Your task to perform on an android device: Go to ESPN.com Image 0: 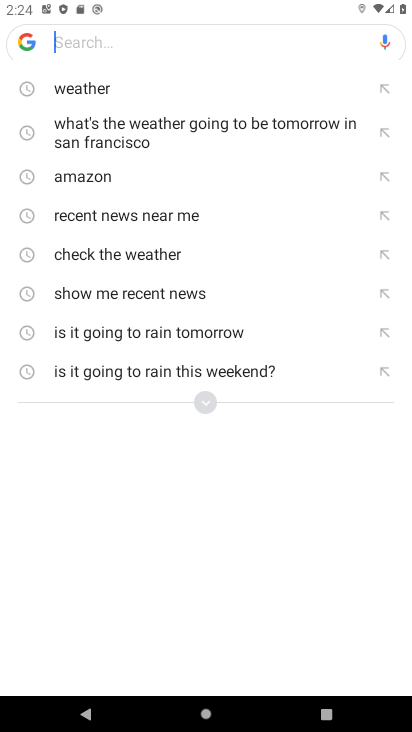
Step 0: press home button
Your task to perform on an android device: Go to ESPN.com Image 1: 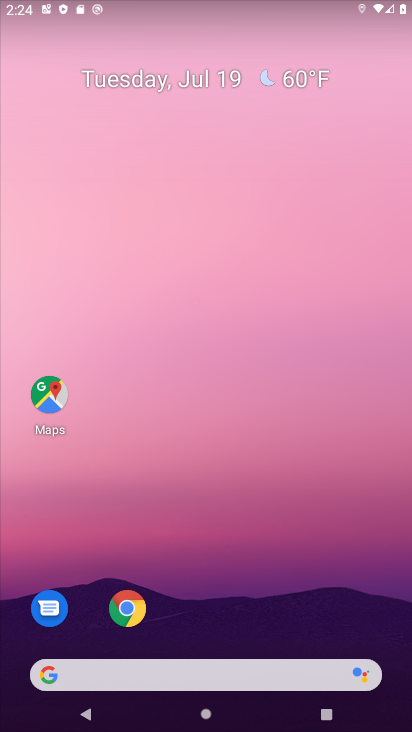
Step 1: drag from (224, 614) to (82, 2)
Your task to perform on an android device: Go to ESPN.com Image 2: 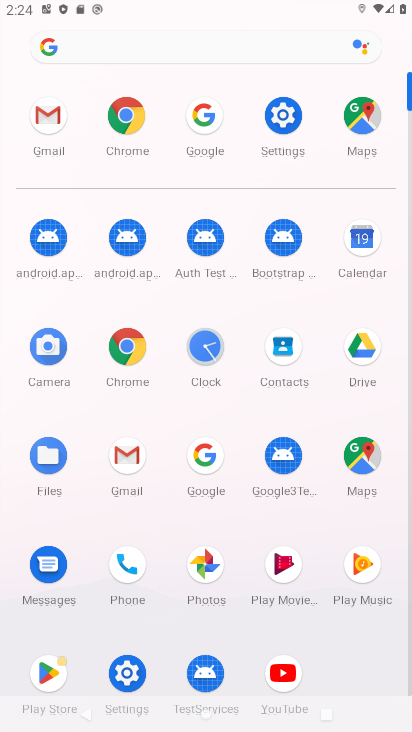
Step 2: click (121, 119)
Your task to perform on an android device: Go to ESPN.com Image 3: 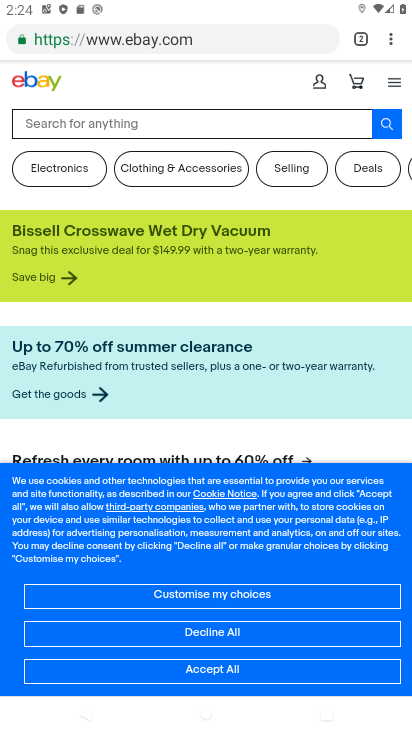
Step 3: press back button
Your task to perform on an android device: Go to ESPN.com Image 4: 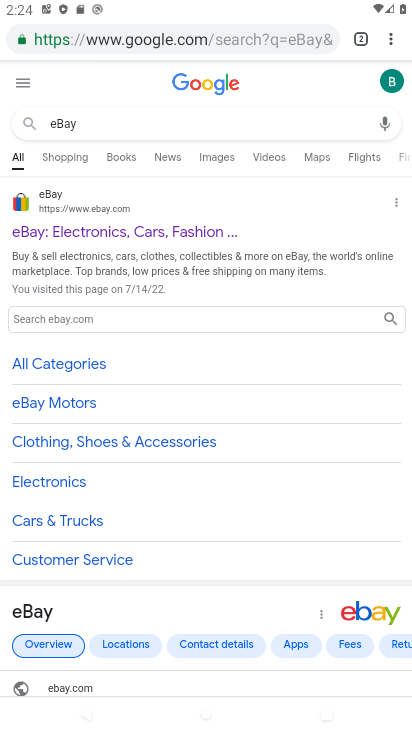
Step 4: press back button
Your task to perform on an android device: Go to ESPN.com Image 5: 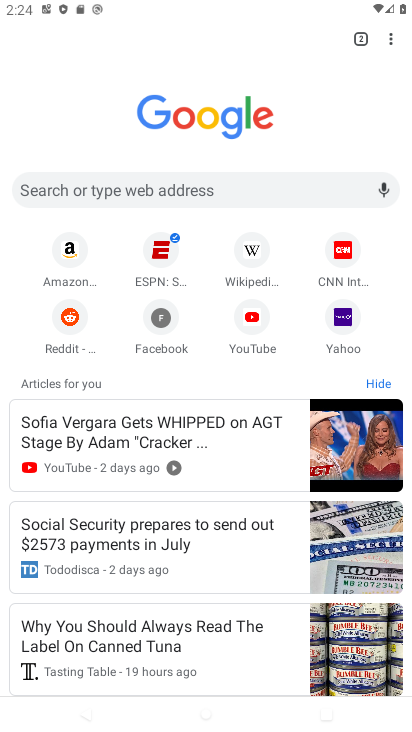
Step 5: click (151, 260)
Your task to perform on an android device: Go to ESPN.com Image 6: 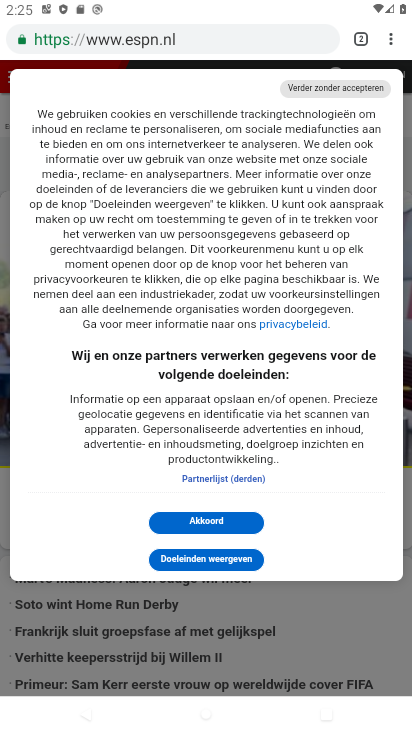
Step 6: task complete